Your task to perform on an android device: delete browsing data in the chrome app Image 0: 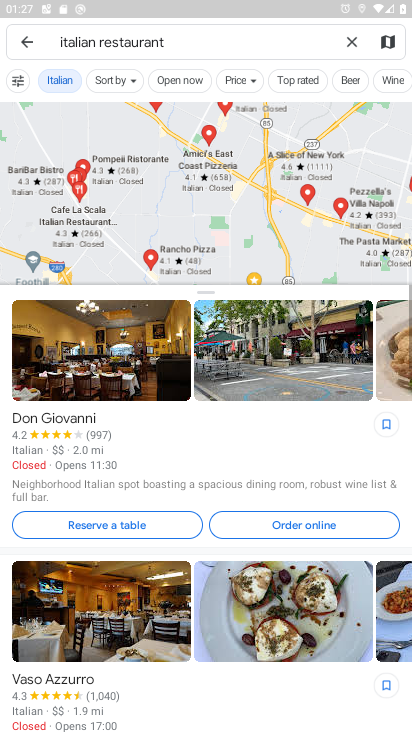
Step 0: press home button
Your task to perform on an android device: delete browsing data in the chrome app Image 1: 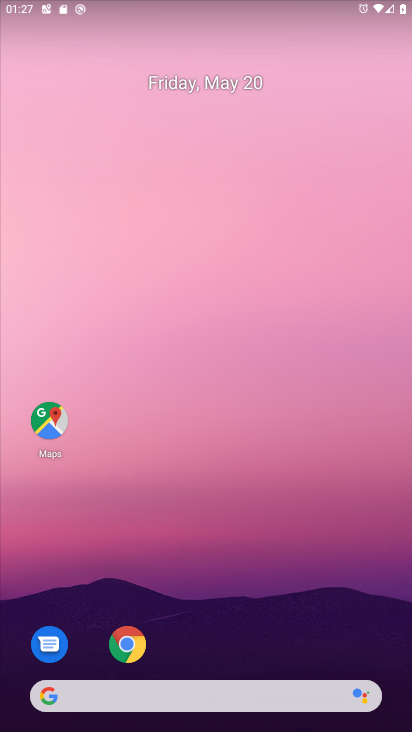
Step 1: drag from (185, 682) to (162, 284)
Your task to perform on an android device: delete browsing data in the chrome app Image 2: 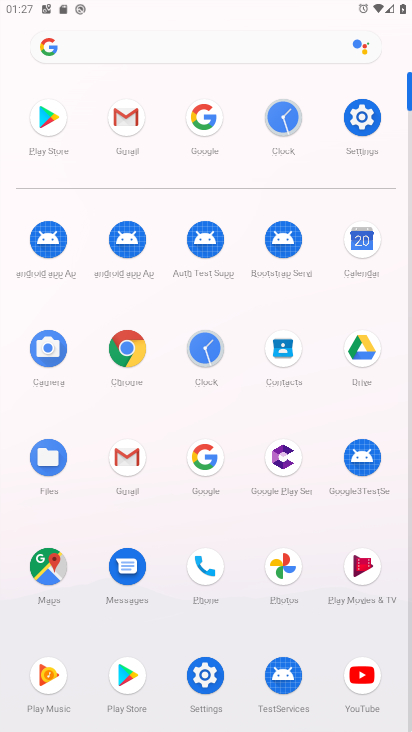
Step 2: click (131, 350)
Your task to perform on an android device: delete browsing data in the chrome app Image 3: 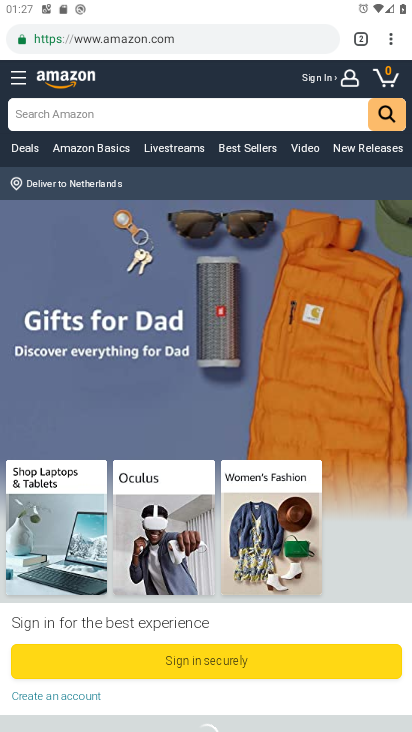
Step 3: click (388, 40)
Your task to perform on an android device: delete browsing data in the chrome app Image 4: 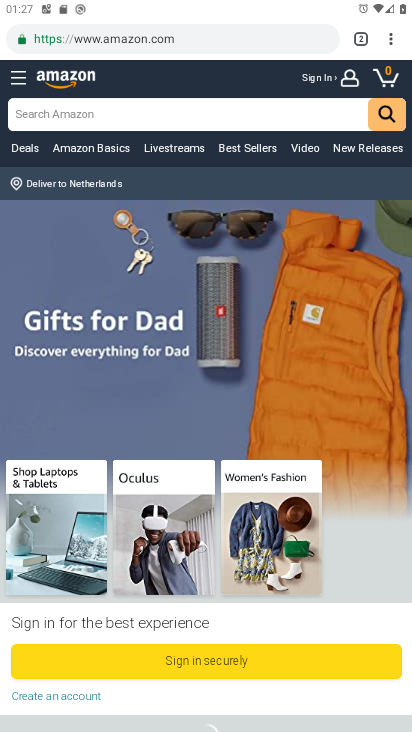
Step 4: click (395, 38)
Your task to perform on an android device: delete browsing data in the chrome app Image 5: 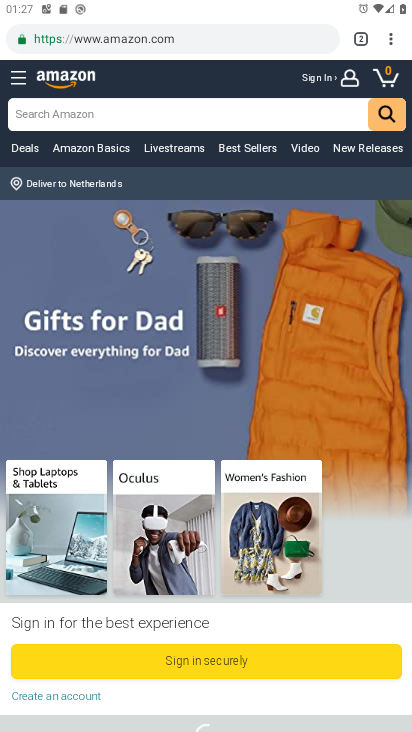
Step 5: click (392, 39)
Your task to perform on an android device: delete browsing data in the chrome app Image 6: 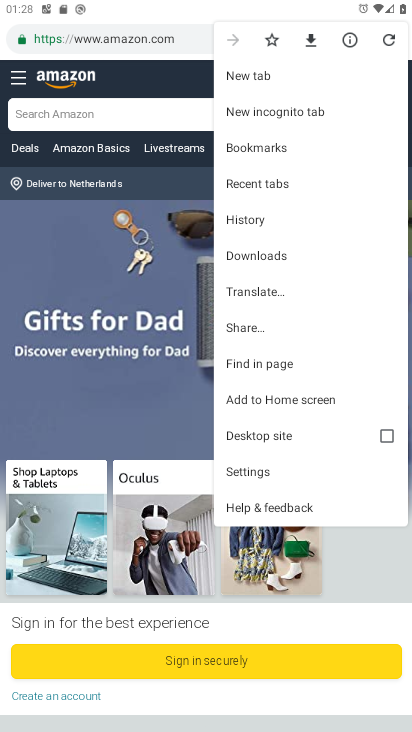
Step 6: click (247, 474)
Your task to perform on an android device: delete browsing data in the chrome app Image 7: 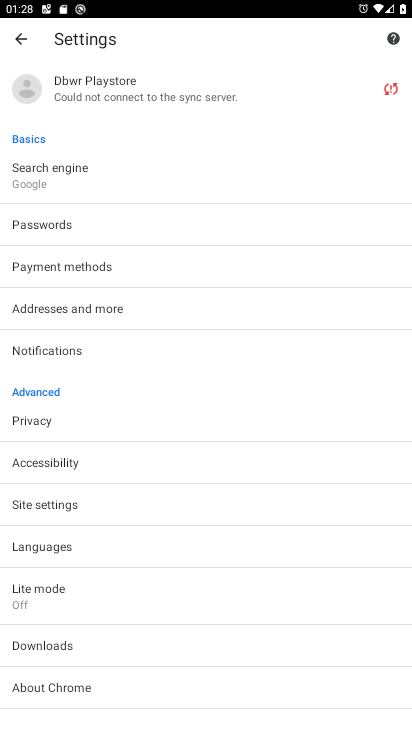
Step 7: click (30, 413)
Your task to perform on an android device: delete browsing data in the chrome app Image 8: 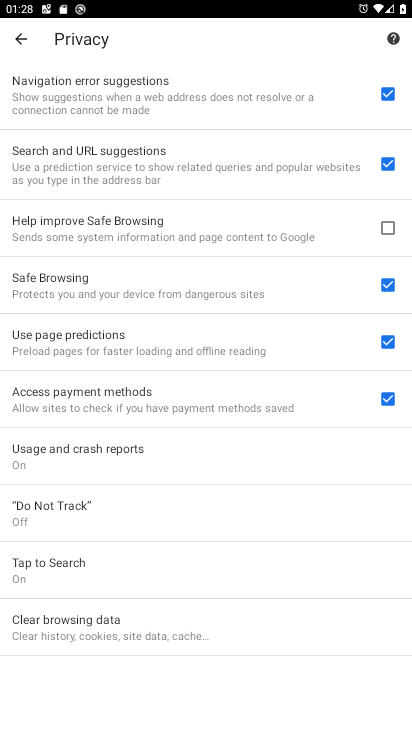
Step 8: click (122, 628)
Your task to perform on an android device: delete browsing data in the chrome app Image 9: 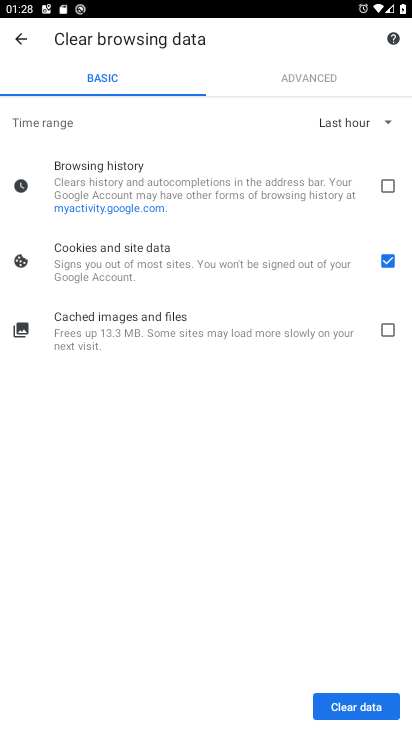
Step 9: click (390, 316)
Your task to perform on an android device: delete browsing data in the chrome app Image 10: 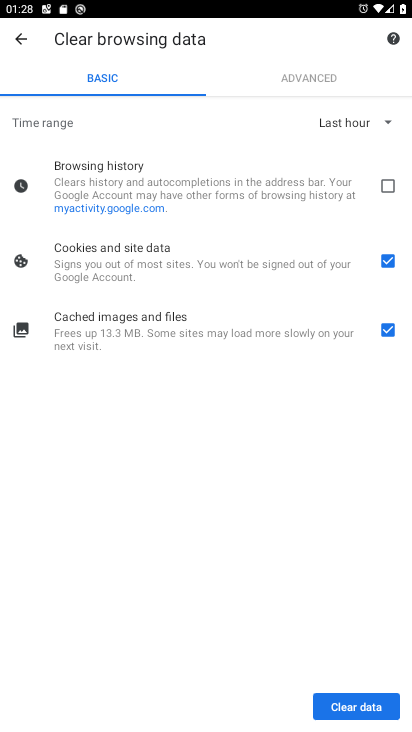
Step 10: click (391, 186)
Your task to perform on an android device: delete browsing data in the chrome app Image 11: 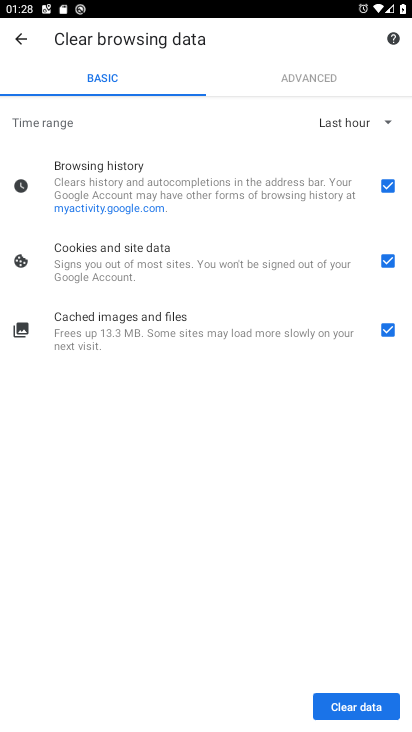
Step 11: click (328, 123)
Your task to perform on an android device: delete browsing data in the chrome app Image 12: 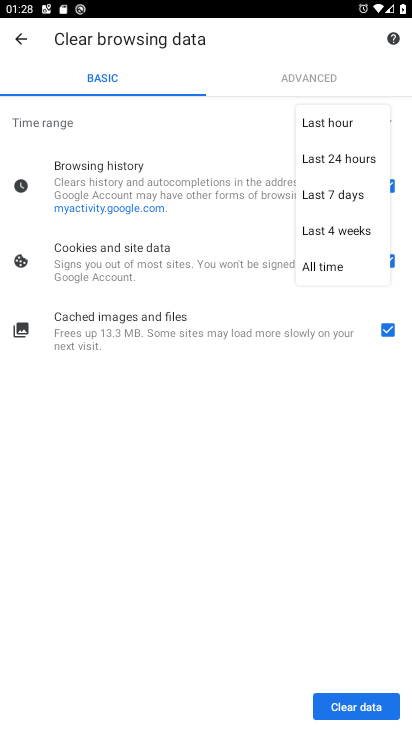
Step 12: click (327, 261)
Your task to perform on an android device: delete browsing data in the chrome app Image 13: 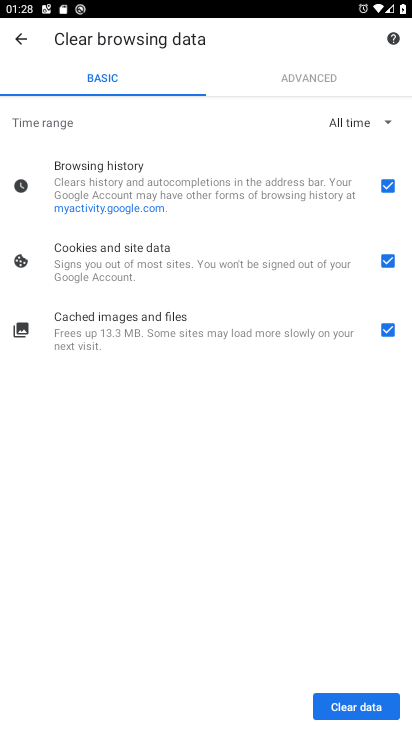
Step 13: click (338, 711)
Your task to perform on an android device: delete browsing data in the chrome app Image 14: 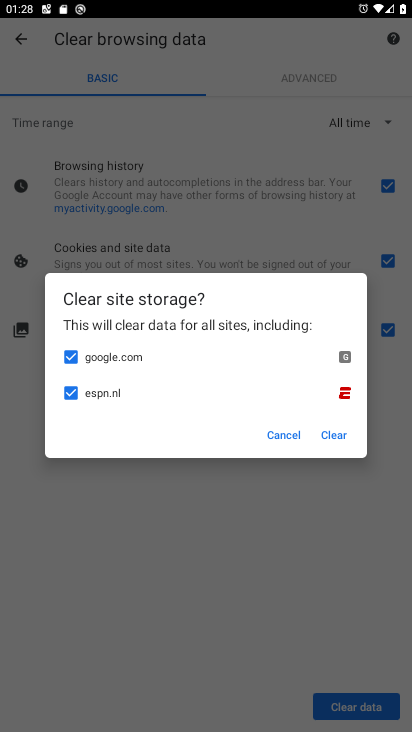
Step 14: click (332, 437)
Your task to perform on an android device: delete browsing data in the chrome app Image 15: 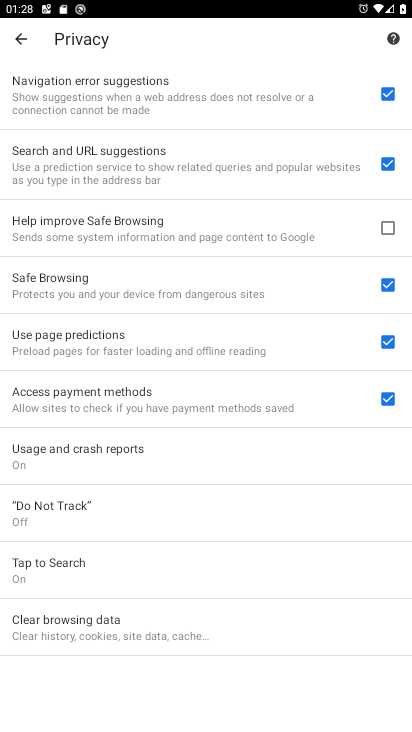
Step 15: task complete